Your task to perform on an android device: turn off translation in the chrome app Image 0: 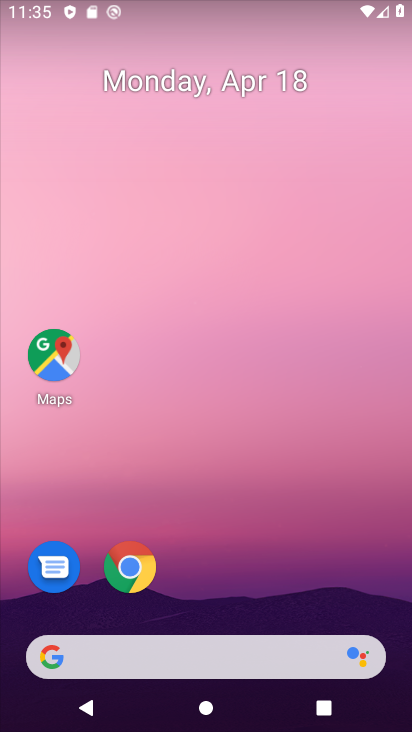
Step 0: click (125, 575)
Your task to perform on an android device: turn off translation in the chrome app Image 1: 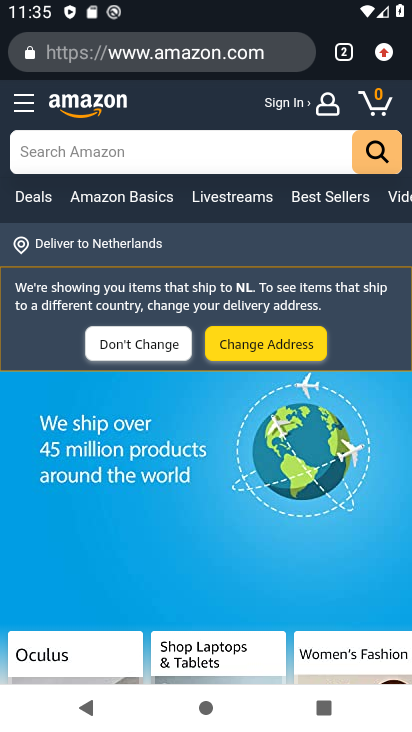
Step 1: click (389, 56)
Your task to perform on an android device: turn off translation in the chrome app Image 2: 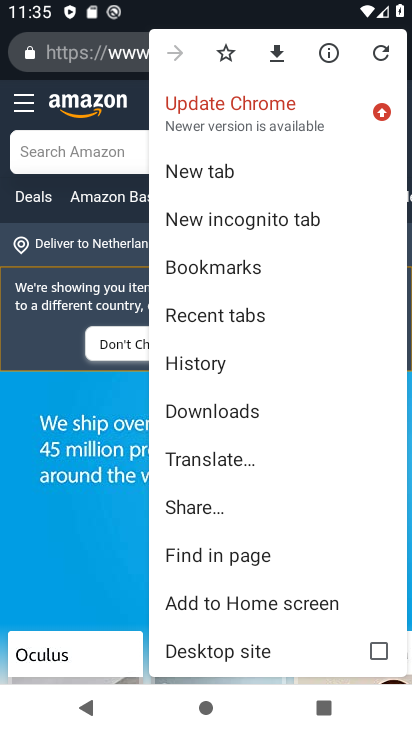
Step 2: drag from (274, 585) to (252, 286)
Your task to perform on an android device: turn off translation in the chrome app Image 3: 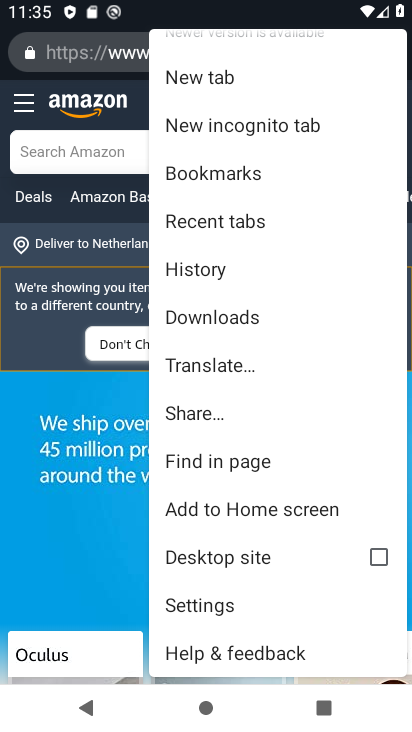
Step 3: click (203, 595)
Your task to perform on an android device: turn off translation in the chrome app Image 4: 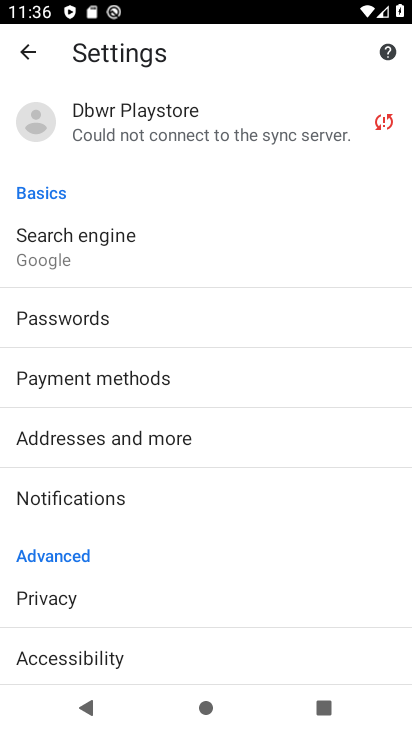
Step 4: drag from (222, 613) to (275, 306)
Your task to perform on an android device: turn off translation in the chrome app Image 5: 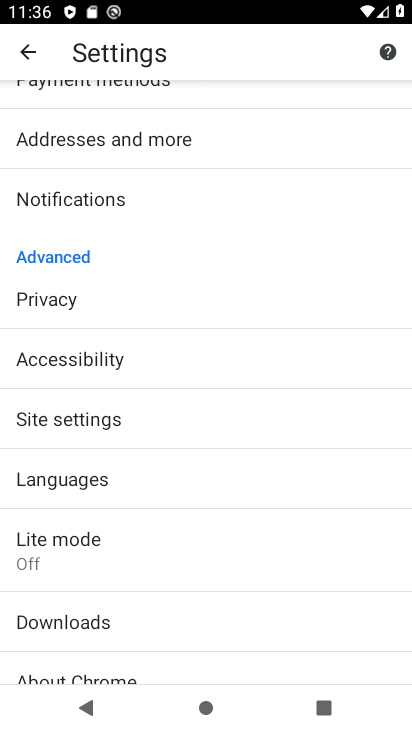
Step 5: drag from (174, 630) to (182, 328)
Your task to perform on an android device: turn off translation in the chrome app Image 6: 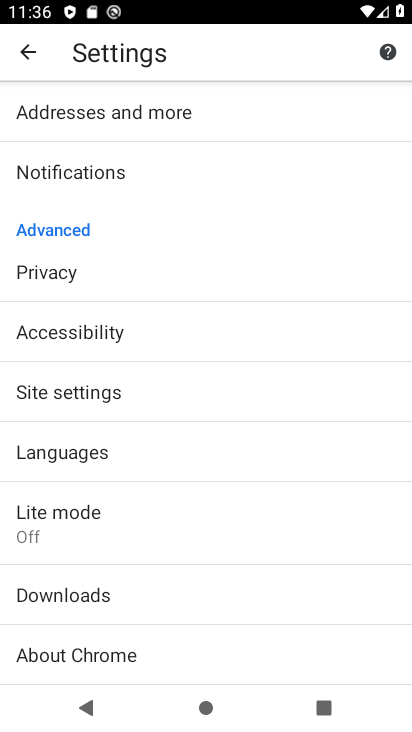
Step 6: click (46, 450)
Your task to perform on an android device: turn off translation in the chrome app Image 7: 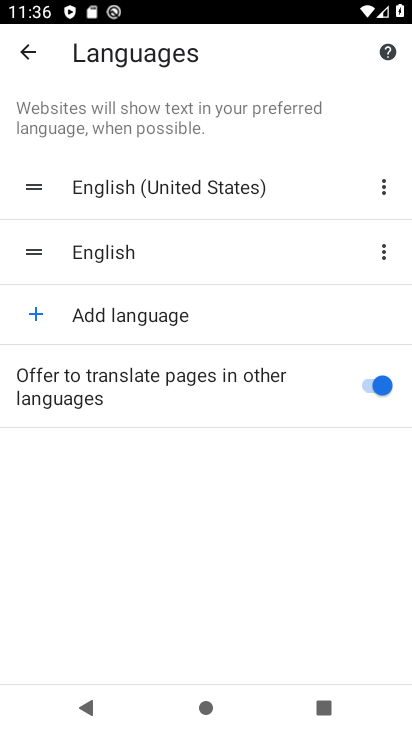
Step 7: click (370, 381)
Your task to perform on an android device: turn off translation in the chrome app Image 8: 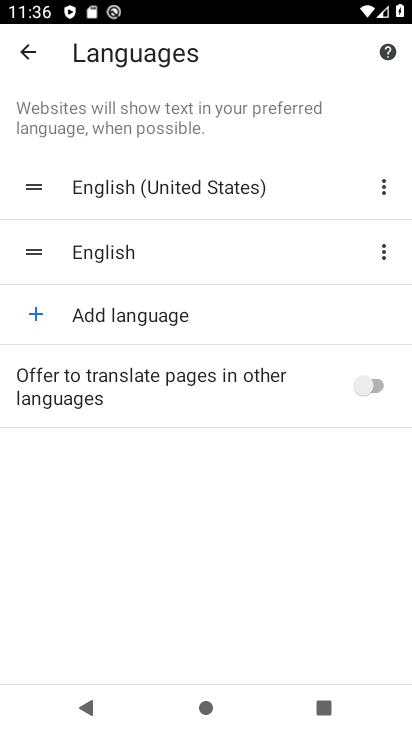
Step 8: task complete